Your task to perform on an android device: Open battery settings Image 0: 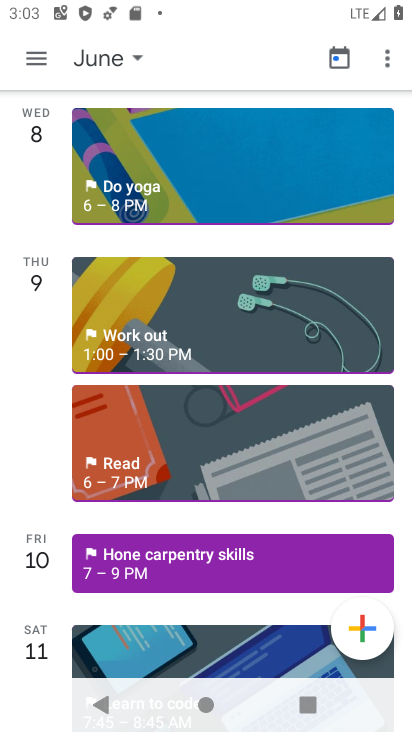
Step 0: press home button
Your task to perform on an android device: Open battery settings Image 1: 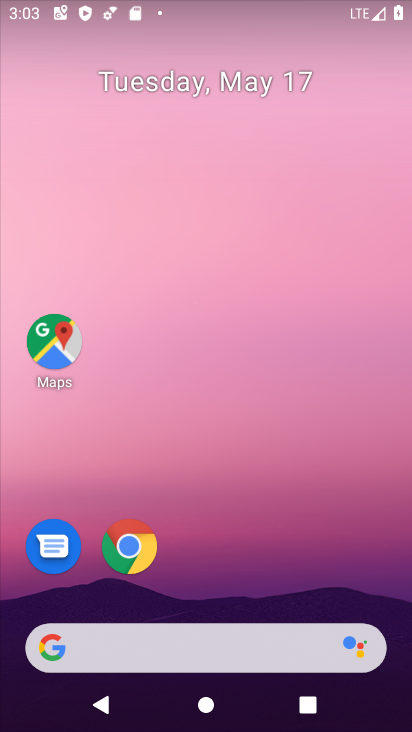
Step 1: drag from (295, 556) to (346, 154)
Your task to perform on an android device: Open battery settings Image 2: 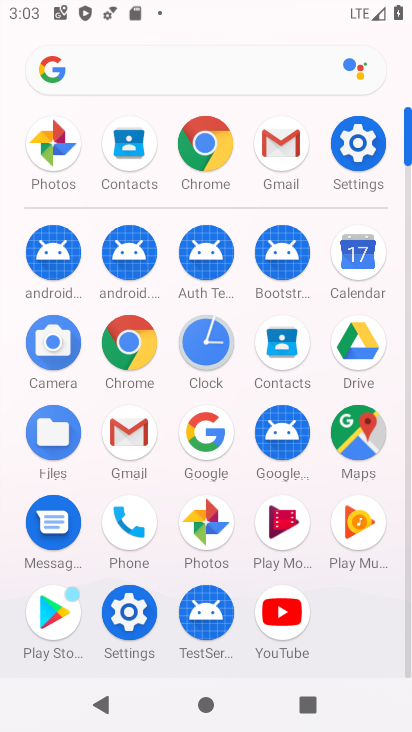
Step 2: click (360, 173)
Your task to perform on an android device: Open battery settings Image 3: 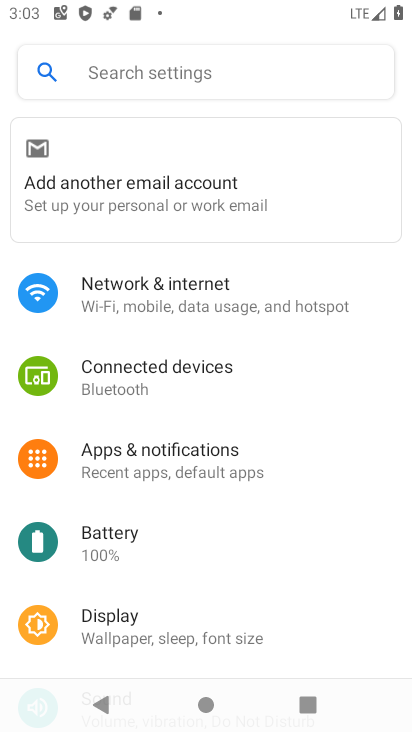
Step 3: click (140, 541)
Your task to perform on an android device: Open battery settings Image 4: 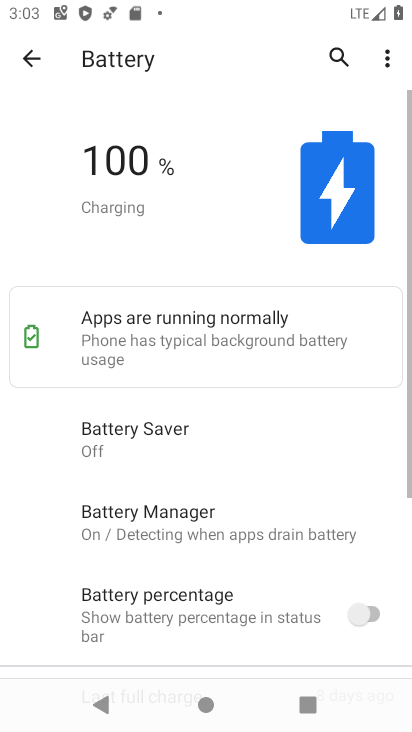
Step 4: task complete